Your task to perform on an android device: Show me popular videos on Youtube Image 0: 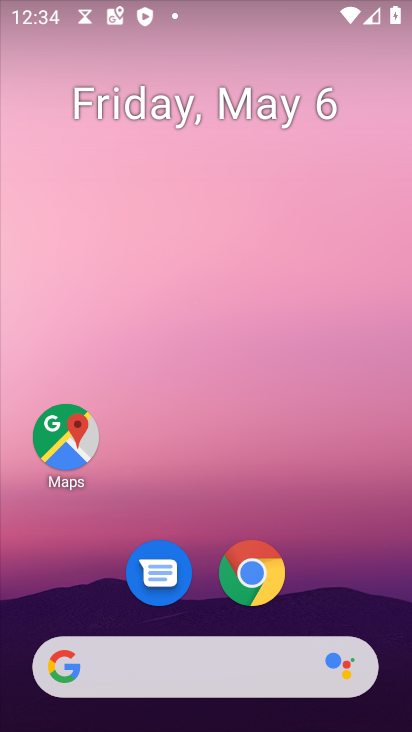
Step 0: drag from (356, 610) to (341, 238)
Your task to perform on an android device: Show me popular videos on Youtube Image 1: 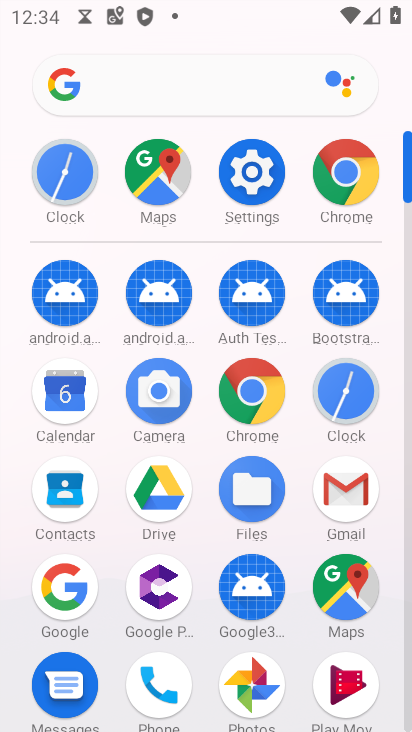
Step 1: drag from (289, 658) to (289, 299)
Your task to perform on an android device: Show me popular videos on Youtube Image 2: 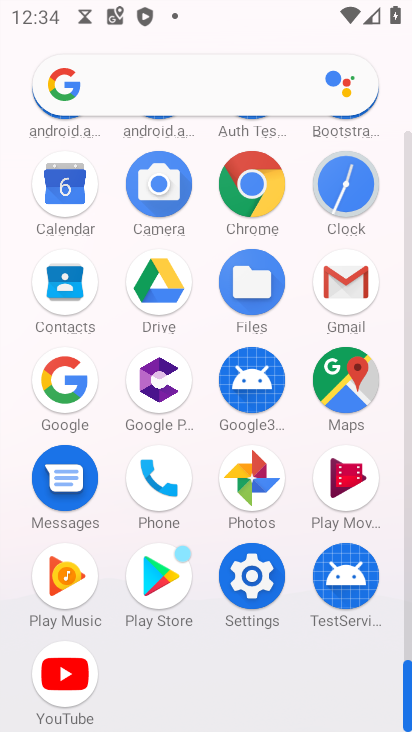
Step 2: click (39, 657)
Your task to perform on an android device: Show me popular videos on Youtube Image 3: 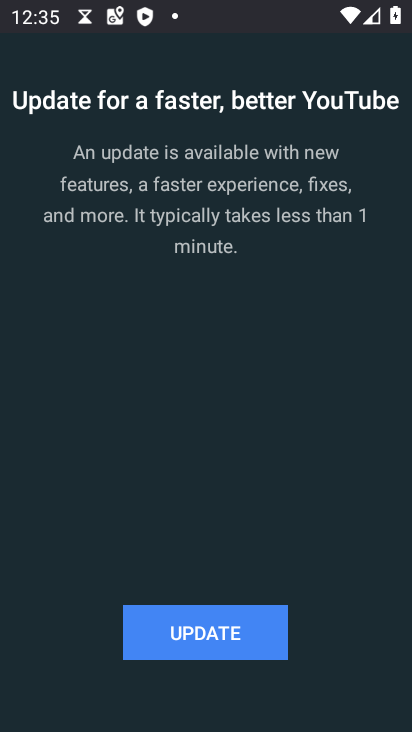
Step 3: task complete